Your task to perform on an android device: change timer sound Image 0: 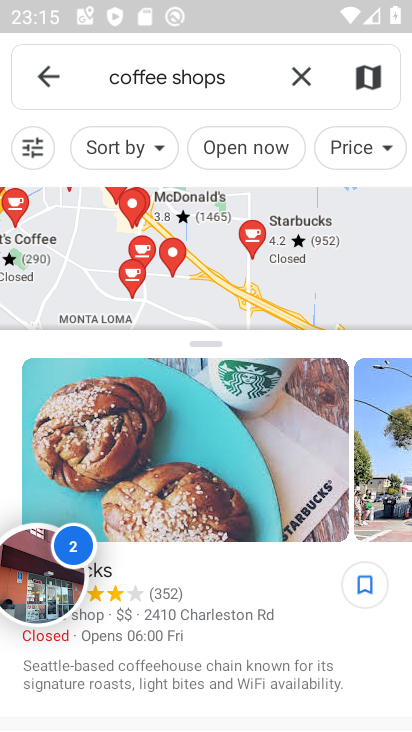
Step 0: press home button
Your task to perform on an android device: change timer sound Image 1: 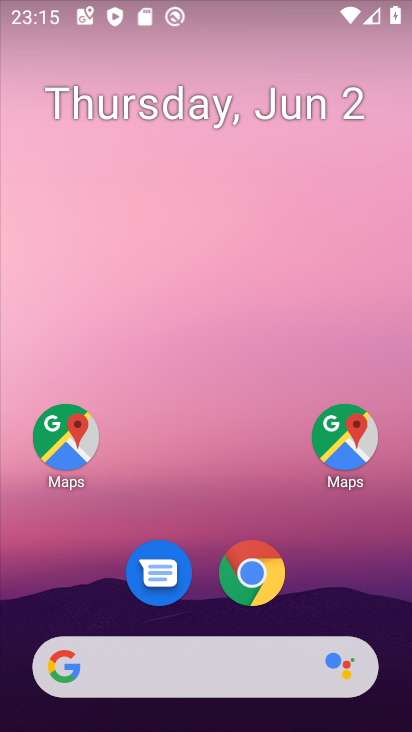
Step 1: drag from (233, 436) to (242, 207)
Your task to perform on an android device: change timer sound Image 2: 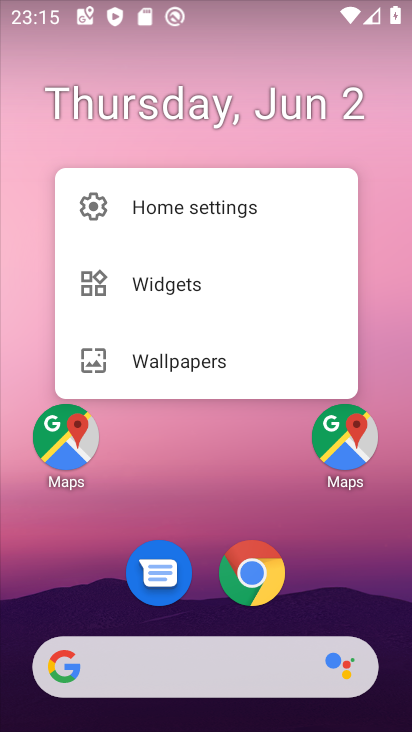
Step 2: press back button
Your task to perform on an android device: change timer sound Image 3: 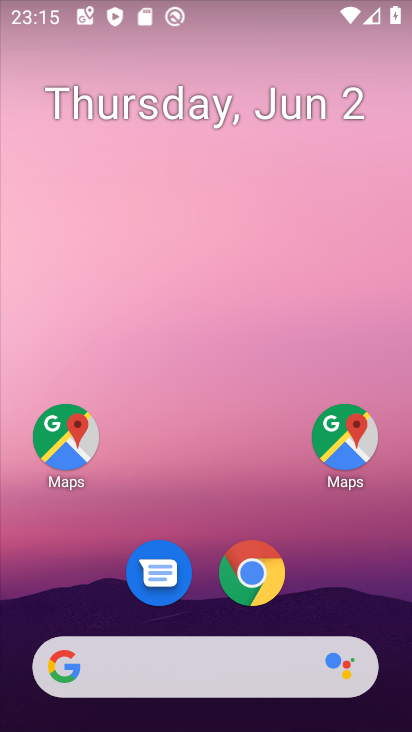
Step 3: drag from (258, 383) to (341, 88)
Your task to perform on an android device: change timer sound Image 4: 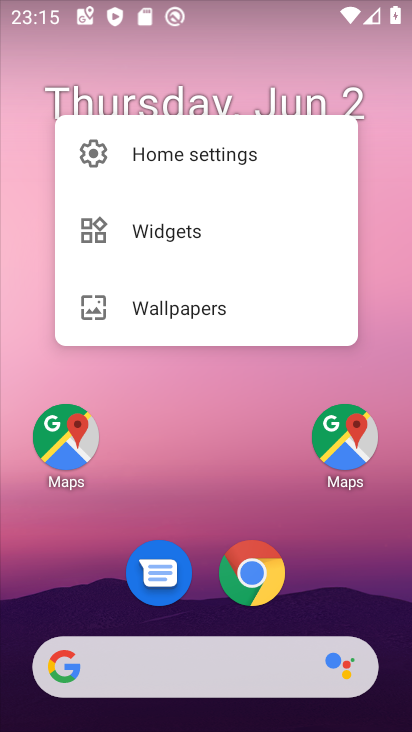
Step 4: press back button
Your task to perform on an android device: change timer sound Image 5: 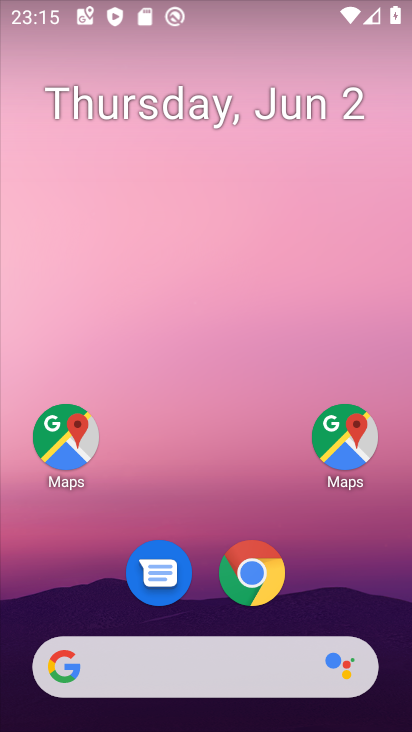
Step 5: drag from (193, 493) to (198, 196)
Your task to perform on an android device: change timer sound Image 6: 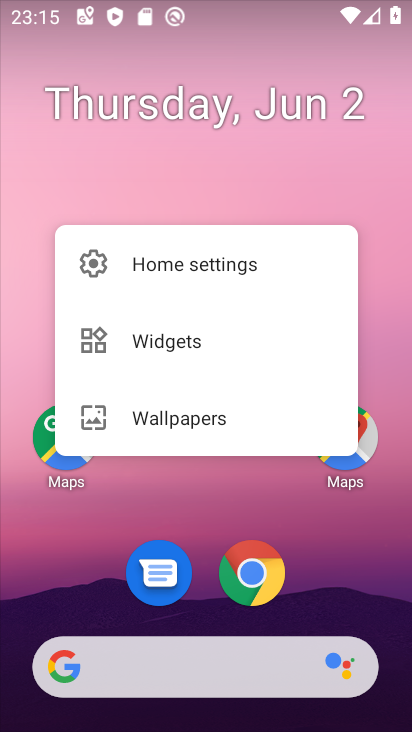
Step 6: press back button
Your task to perform on an android device: change timer sound Image 7: 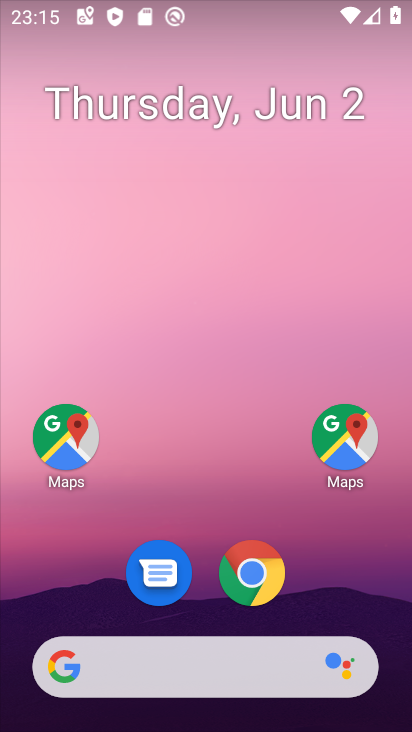
Step 7: drag from (201, 547) to (224, 299)
Your task to perform on an android device: change timer sound Image 8: 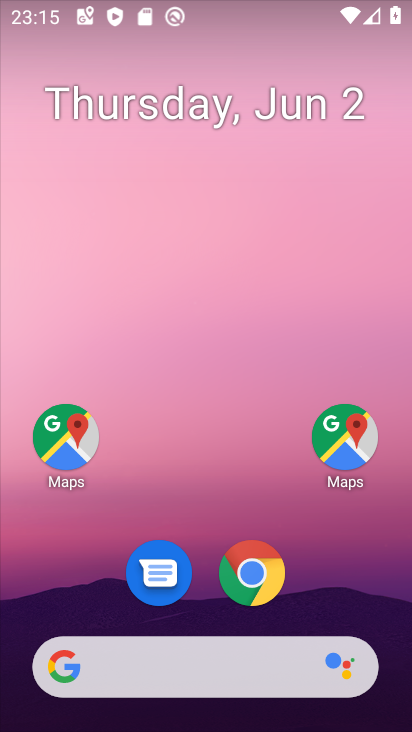
Step 8: drag from (196, 613) to (198, 427)
Your task to perform on an android device: change timer sound Image 9: 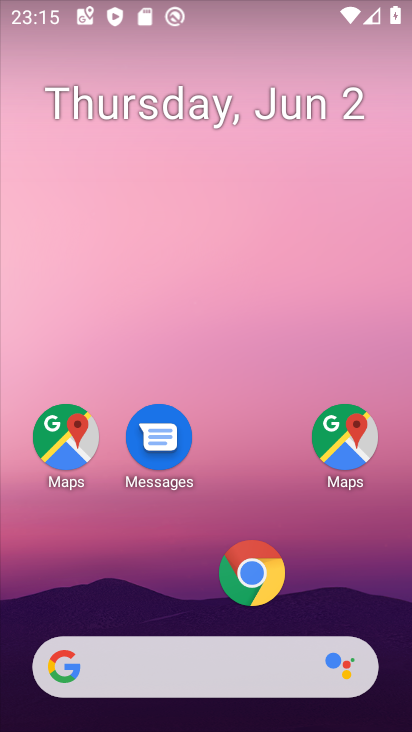
Step 9: click (169, 600)
Your task to perform on an android device: change timer sound Image 10: 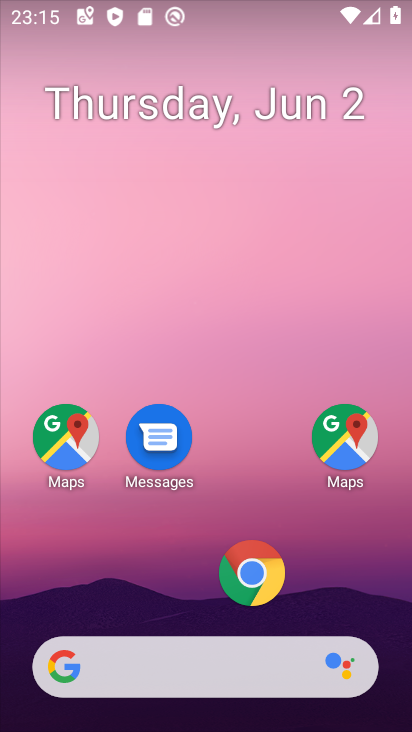
Step 10: drag from (169, 600) to (217, 10)
Your task to perform on an android device: change timer sound Image 11: 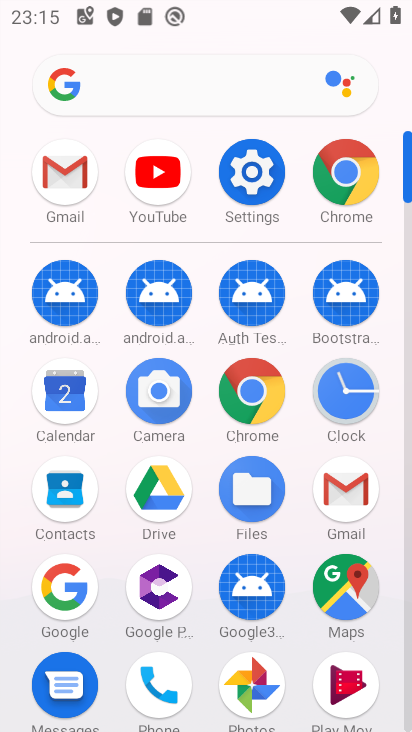
Step 11: click (321, 385)
Your task to perform on an android device: change timer sound Image 12: 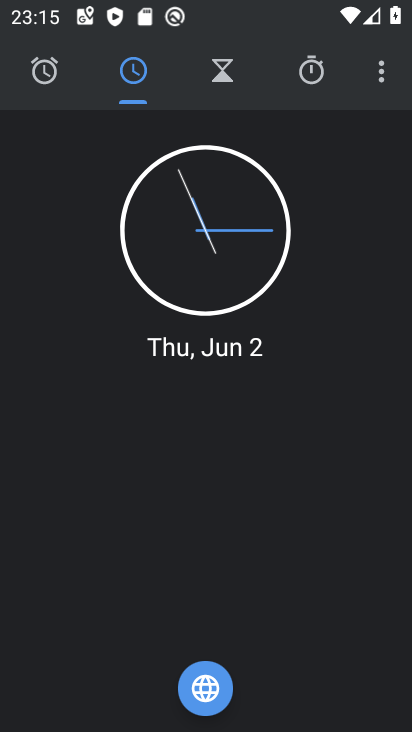
Step 12: click (377, 81)
Your task to perform on an android device: change timer sound Image 13: 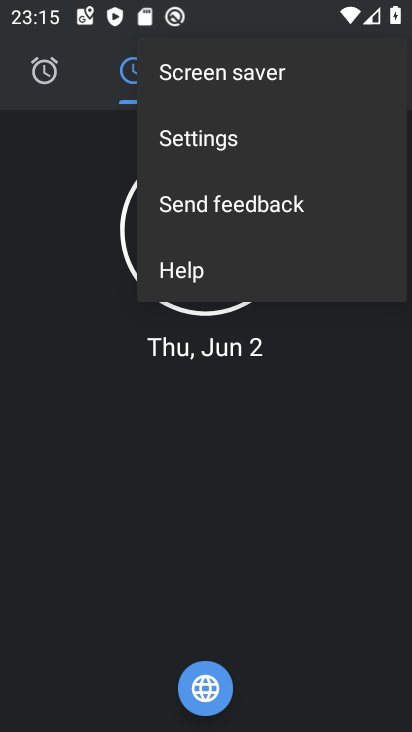
Step 13: click (234, 140)
Your task to perform on an android device: change timer sound Image 14: 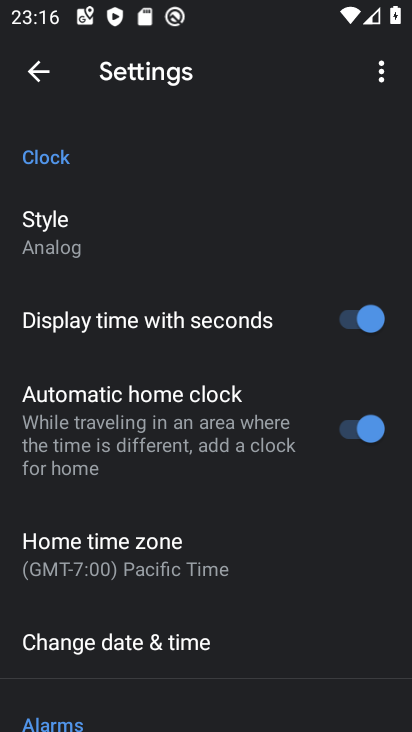
Step 14: drag from (304, 687) to (329, 539)
Your task to perform on an android device: change timer sound Image 15: 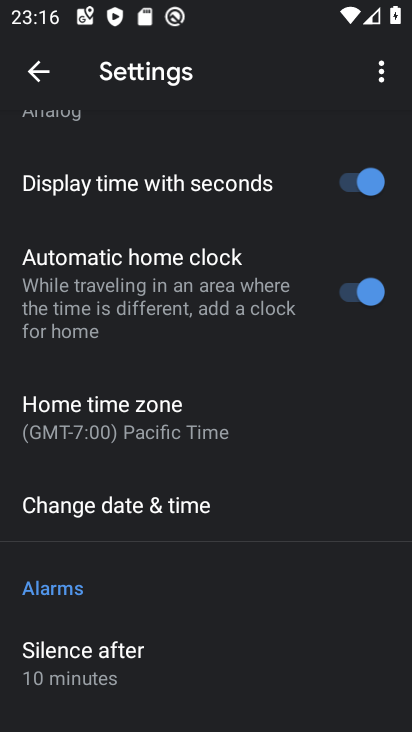
Step 15: drag from (151, 665) to (127, 389)
Your task to perform on an android device: change timer sound Image 16: 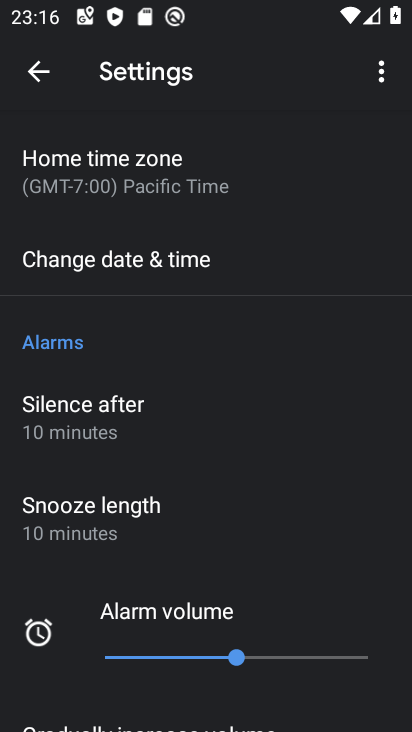
Step 16: drag from (272, 563) to (299, 224)
Your task to perform on an android device: change timer sound Image 17: 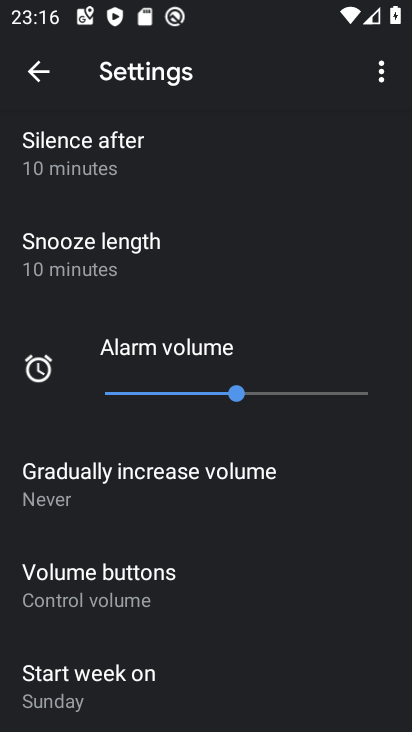
Step 17: drag from (250, 514) to (291, 217)
Your task to perform on an android device: change timer sound Image 18: 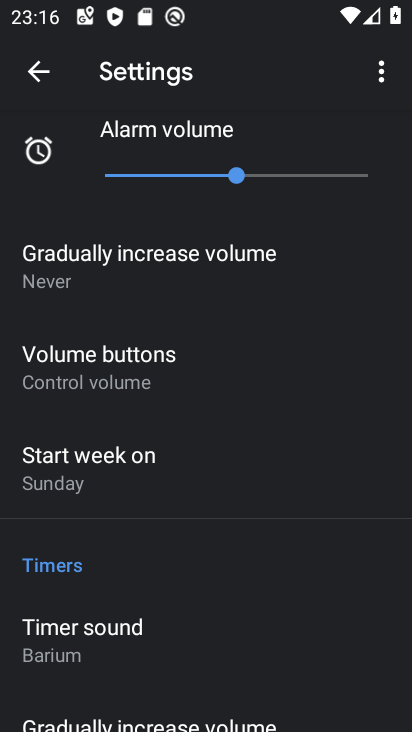
Step 18: click (138, 640)
Your task to perform on an android device: change timer sound Image 19: 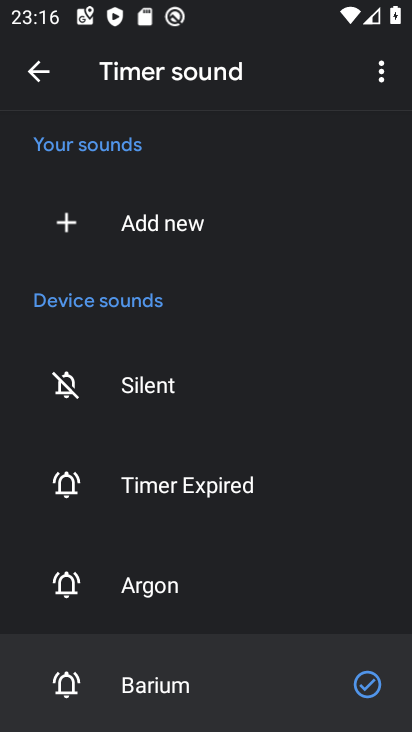
Step 19: click (139, 588)
Your task to perform on an android device: change timer sound Image 20: 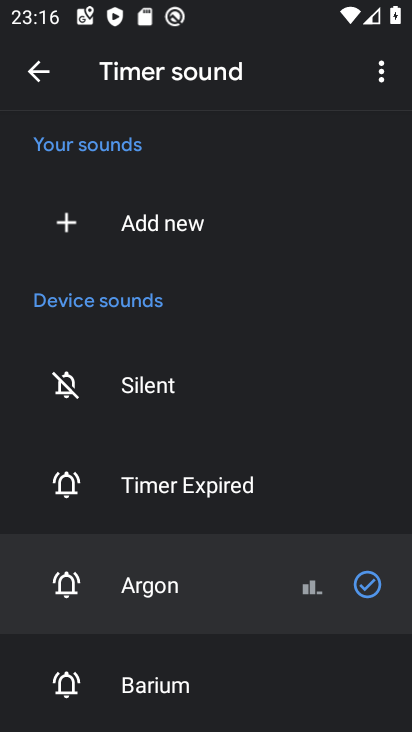
Step 20: task complete